Your task to perform on an android device: Toggle the flashlight Image 0: 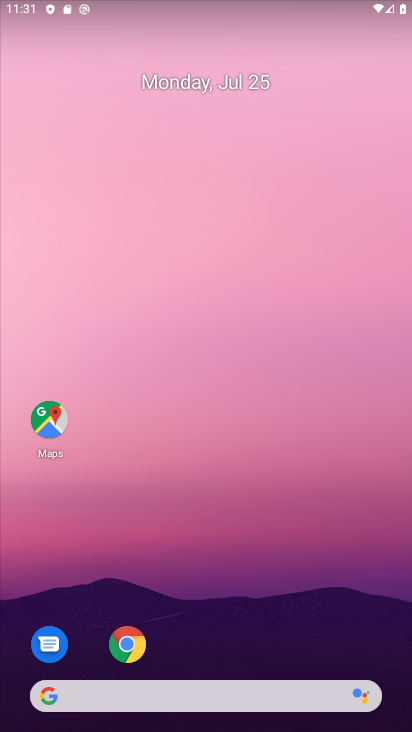
Step 0: drag from (280, 14) to (78, 511)
Your task to perform on an android device: Toggle the flashlight Image 1: 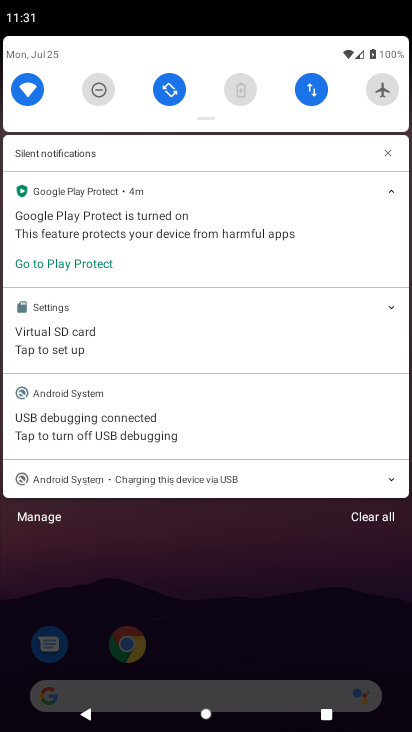
Step 1: task complete